Your task to perform on an android device: change the clock display to analog Image 0: 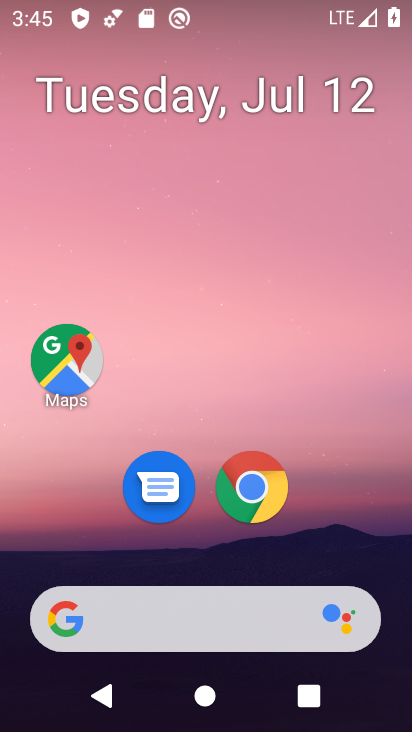
Step 0: drag from (189, 620) to (279, 29)
Your task to perform on an android device: change the clock display to analog Image 1: 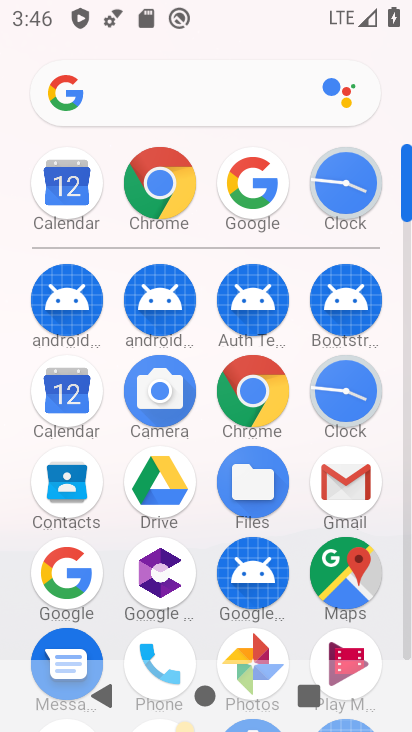
Step 1: click (351, 388)
Your task to perform on an android device: change the clock display to analog Image 2: 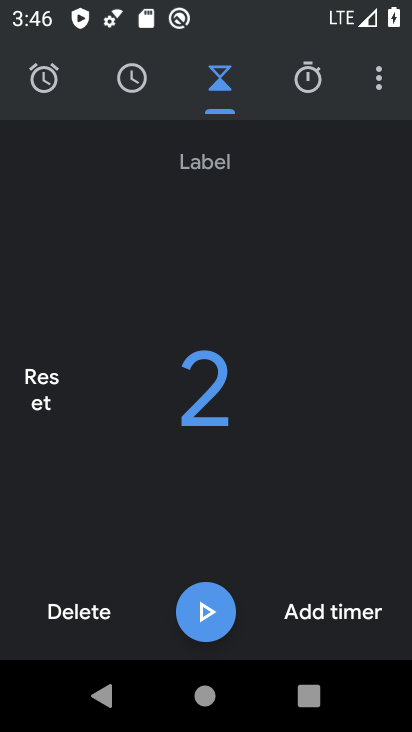
Step 2: click (378, 83)
Your task to perform on an android device: change the clock display to analog Image 3: 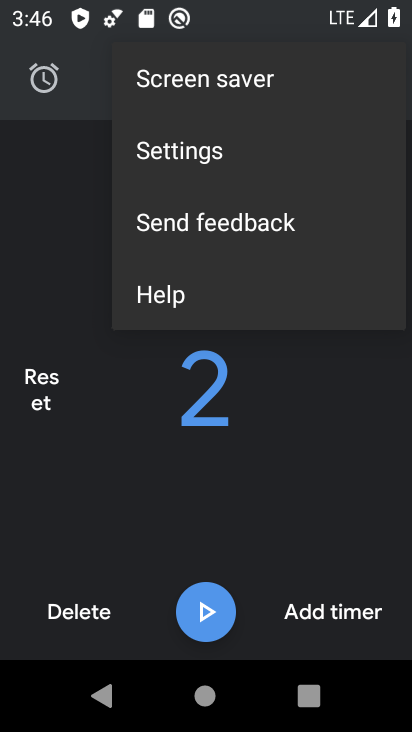
Step 3: click (155, 160)
Your task to perform on an android device: change the clock display to analog Image 4: 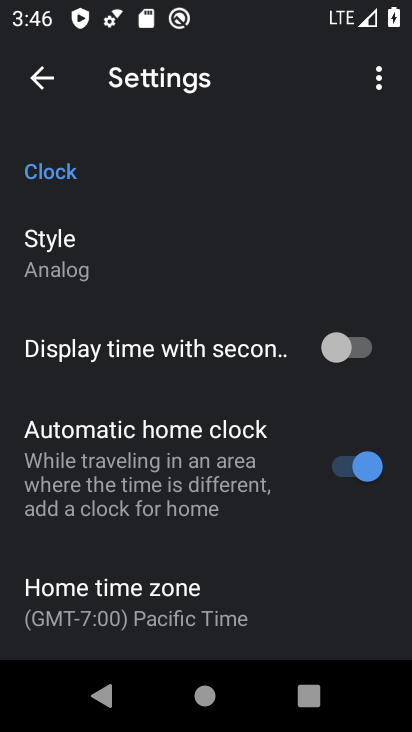
Step 4: task complete